Your task to perform on an android device: change the clock display to digital Image 0: 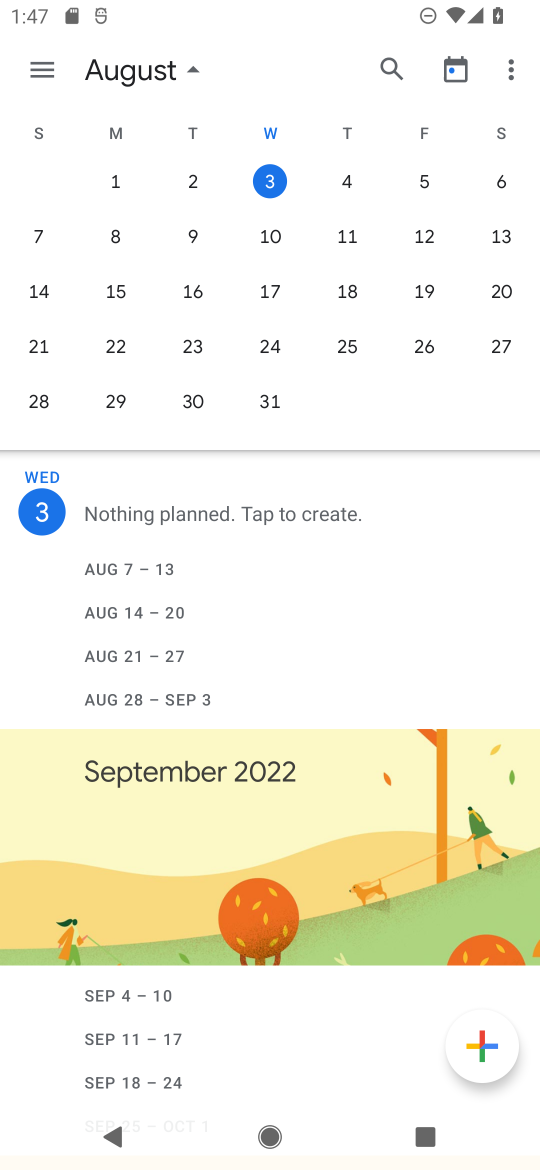
Step 0: press back button
Your task to perform on an android device: change the clock display to digital Image 1: 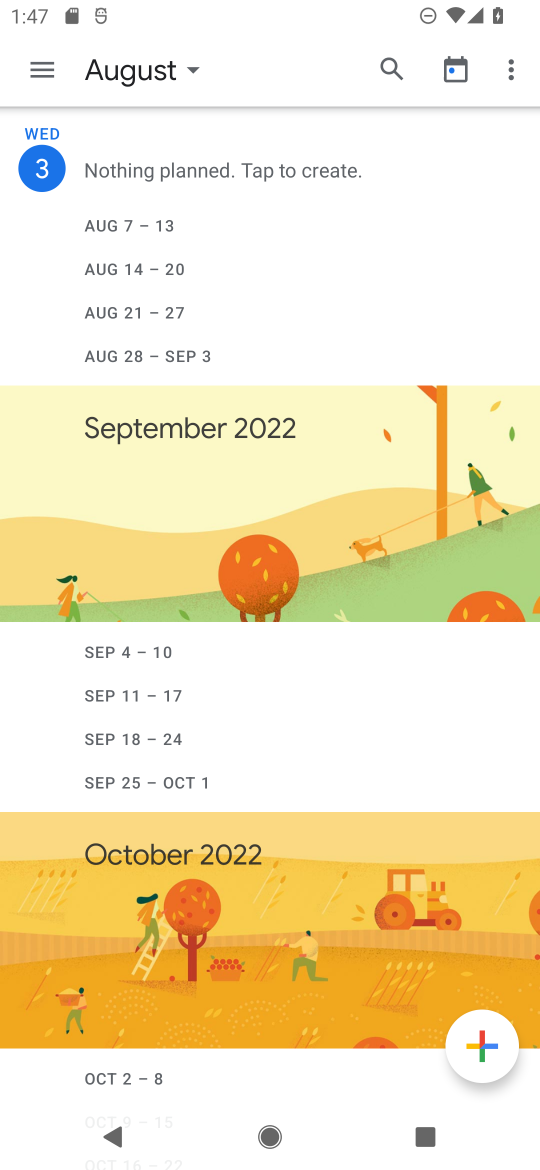
Step 1: press home button
Your task to perform on an android device: change the clock display to digital Image 2: 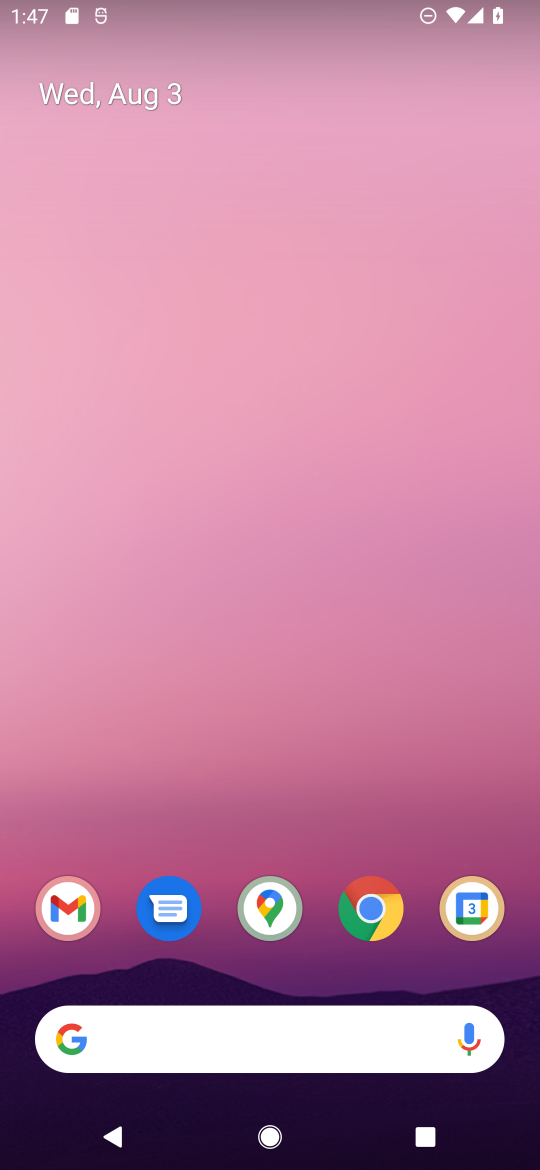
Step 2: press home button
Your task to perform on an android device: change the clock display to digital Image 3: 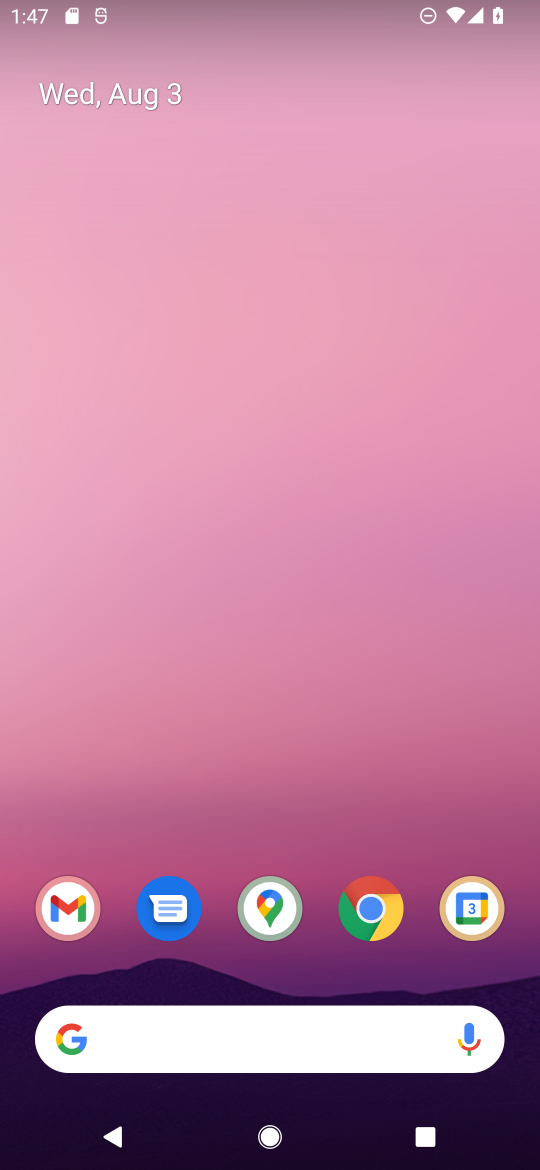
Step 3: drag from (255, 897) to (259, 344)
Your task to perform on an android device: change the clock display to digital Image 4: 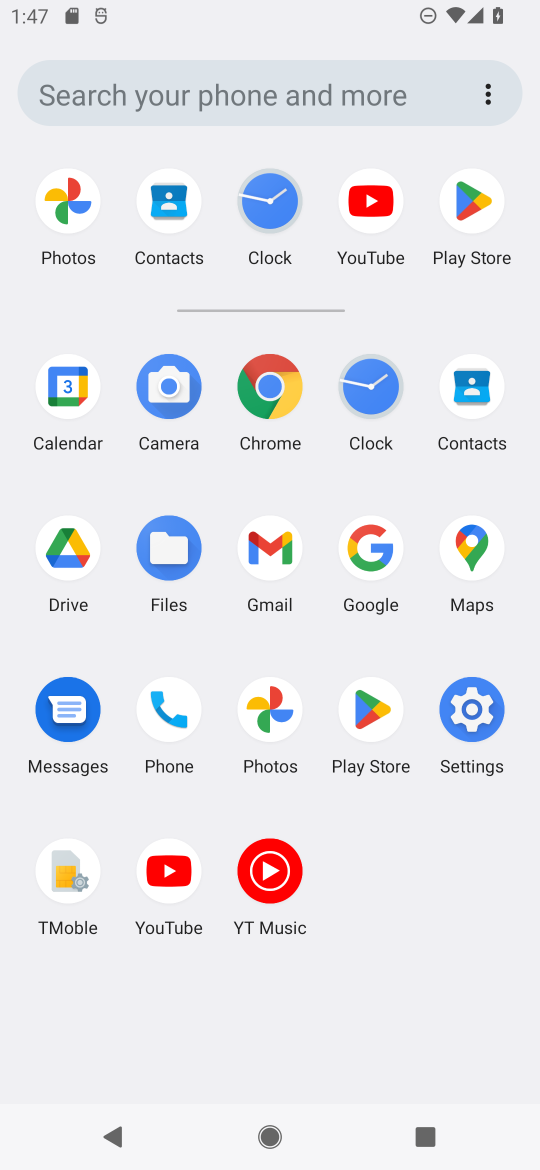
Step 4: click (268, 224)
Your task to perform on an android device: change the clock display to digital Image 5: 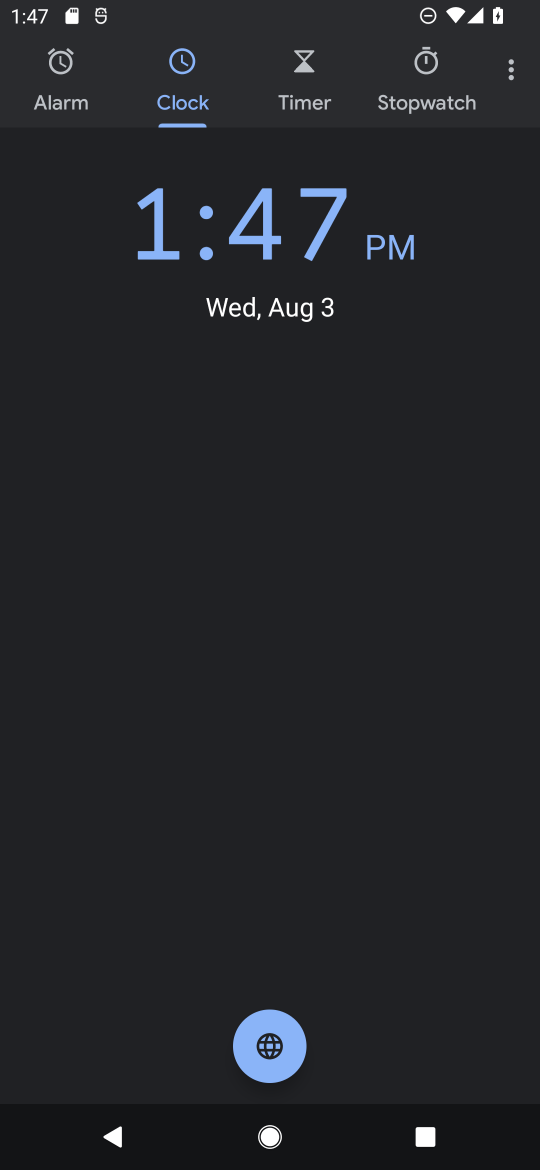
Step 5: click (508, 72)
Your task to perform on an android device: change the clock display to digital Image 6: 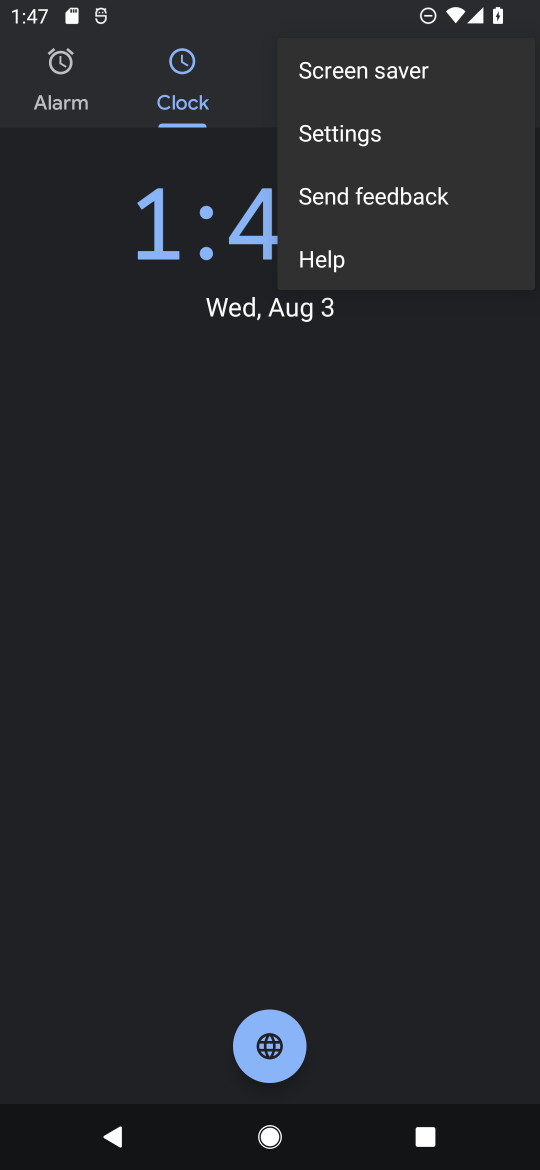
Step 6: click (365, 126)
Your task to perform on an android device: change the clock display to digital Image 7: 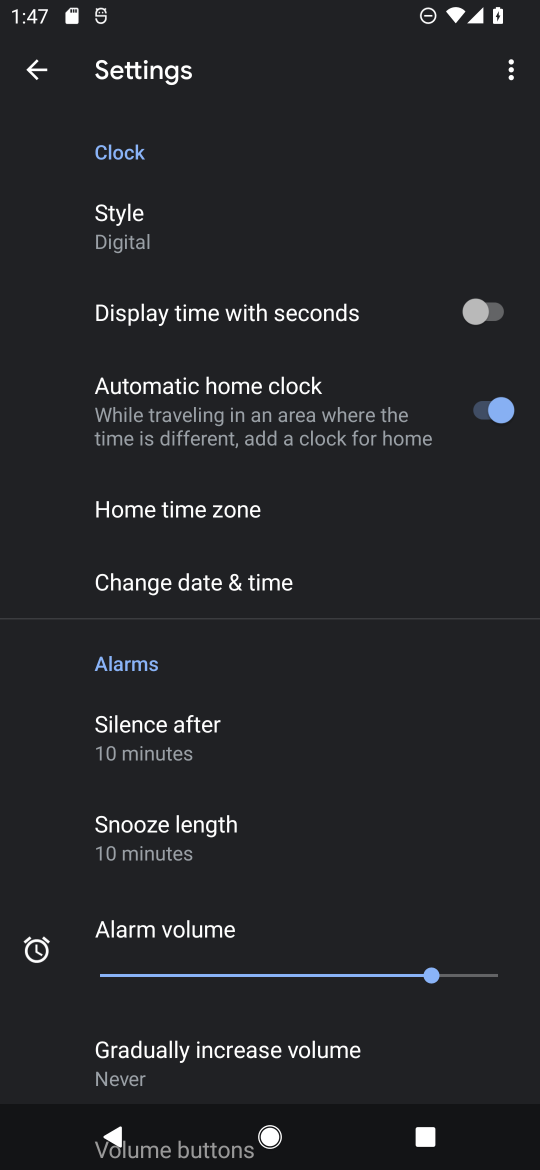
Step 7: click (110, 238)
Your task to perform on an android device: change the clock display to digital Image 8: 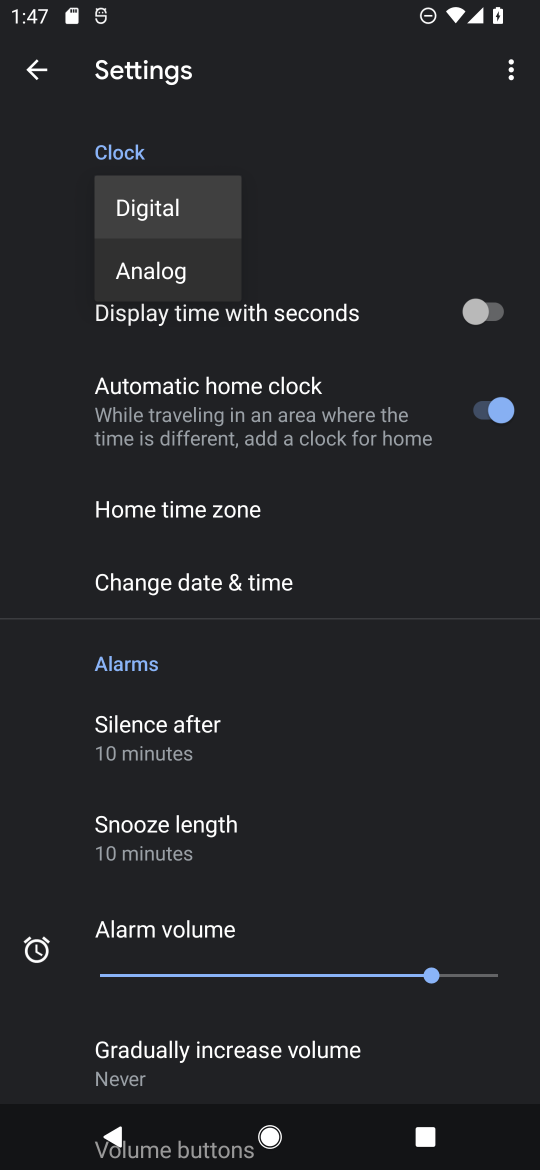
Step 8: task complete